Your task to perform on an android device: Search for Italian restaurants on Maps Image 0: 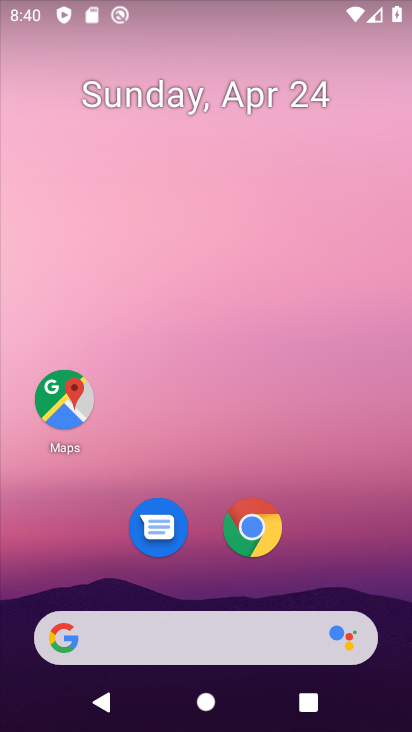
Step 0: click (65, 401)
Your task to perform on an android device: Search for Italian restaurants on Maps Image 1: 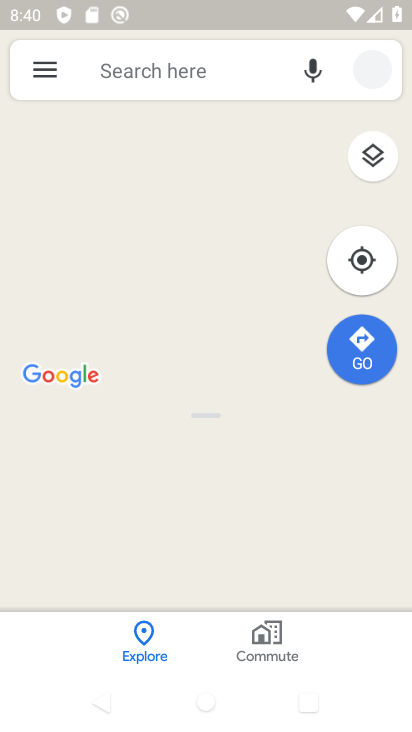
Step 1: click (134, 79)
Your task to perform on an android device: Search for Italian restaurants on Maps Image 2: 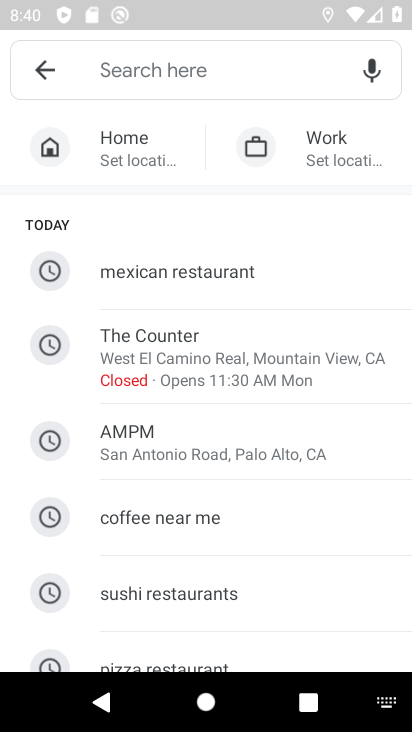
Step 2: type "italian restaurant"
Your task to perform on an android device: Search for Italian restaurants on Maps Image 3: 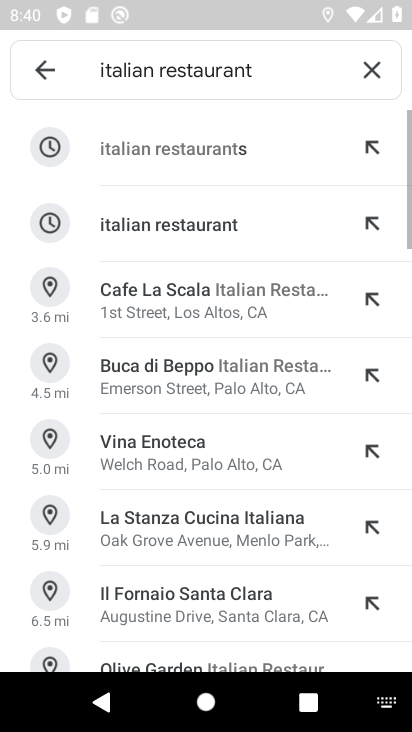
Step 3: click (162, 156)
Your task to perform on an android device: Search for Italian restaurants on Maps Image 4: 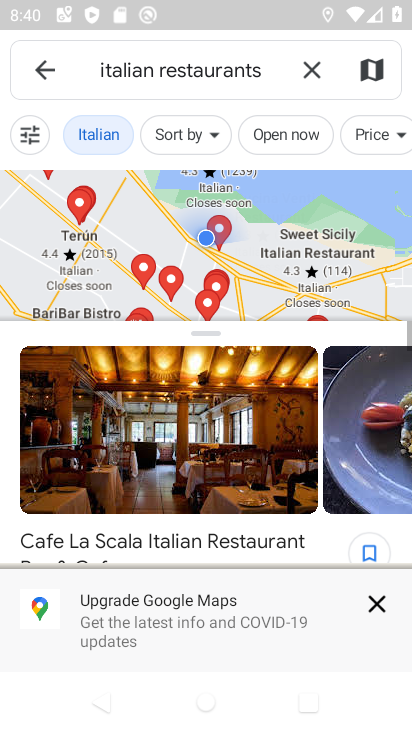
Step 4: task complete